Your task to perform on an android device: Google the capital of the United States Image 0: 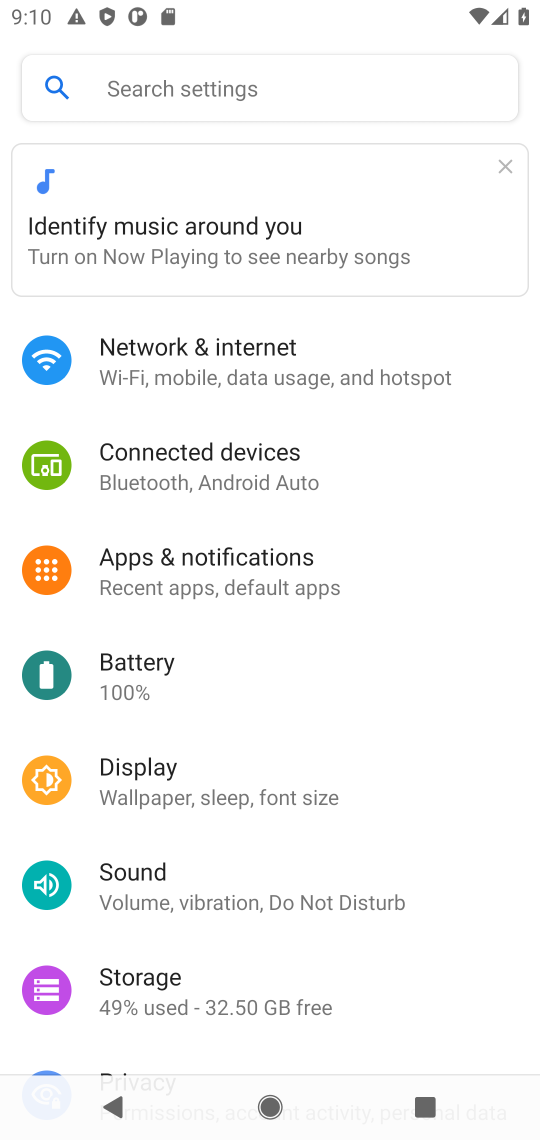
Step 0: press home button
Your task to perform on an android device: Google the capital of the United States Image 1: 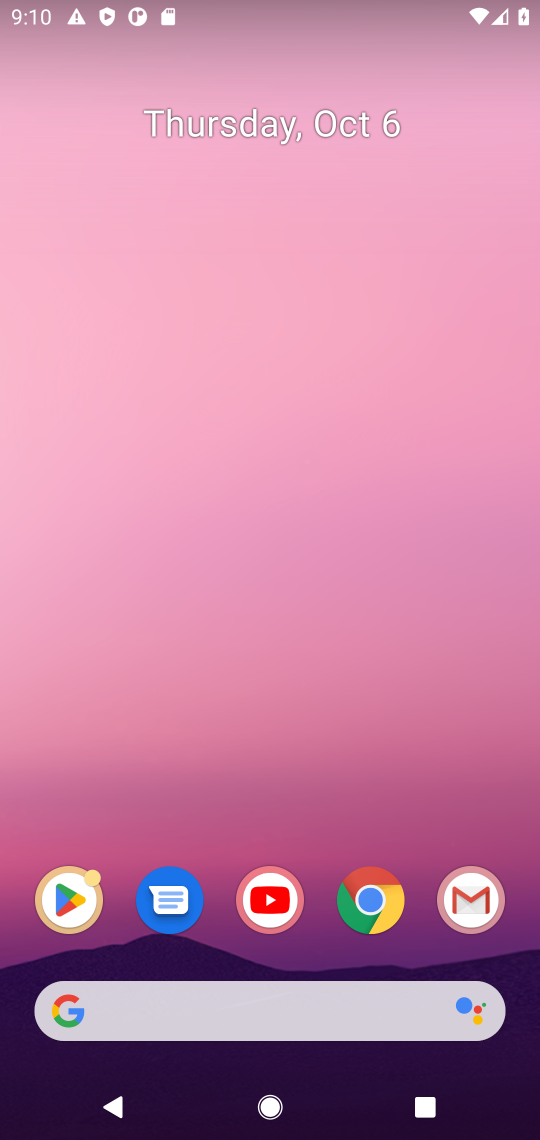
Step 1: click (219, 1018)
Your task to perform on an android device: Google the capital of the United States Image 2: 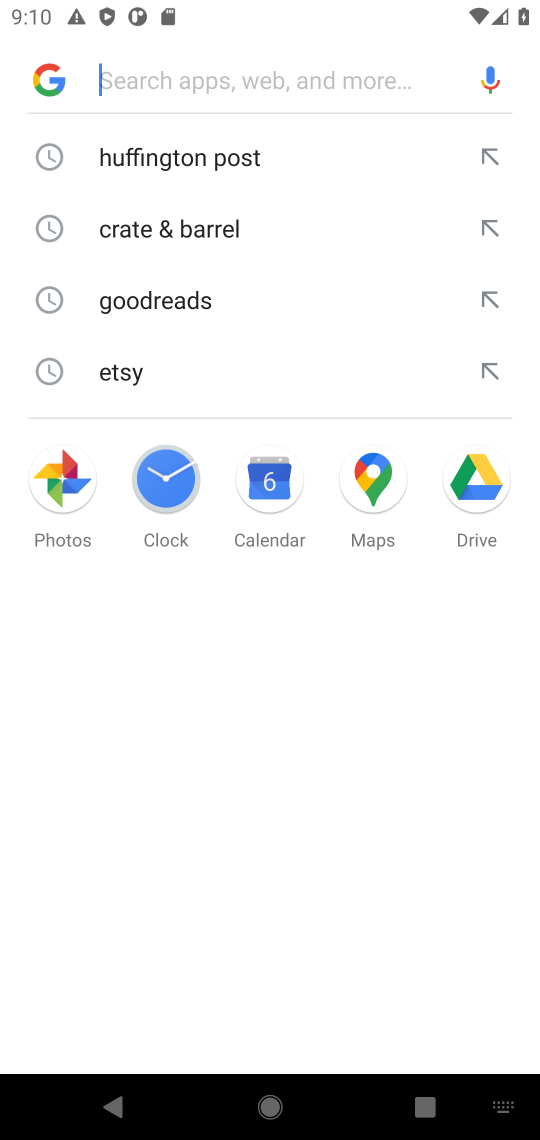
Step 2: type "capital of united states"
Your task to perform on an android device: Google the capital of the United States Image 3: 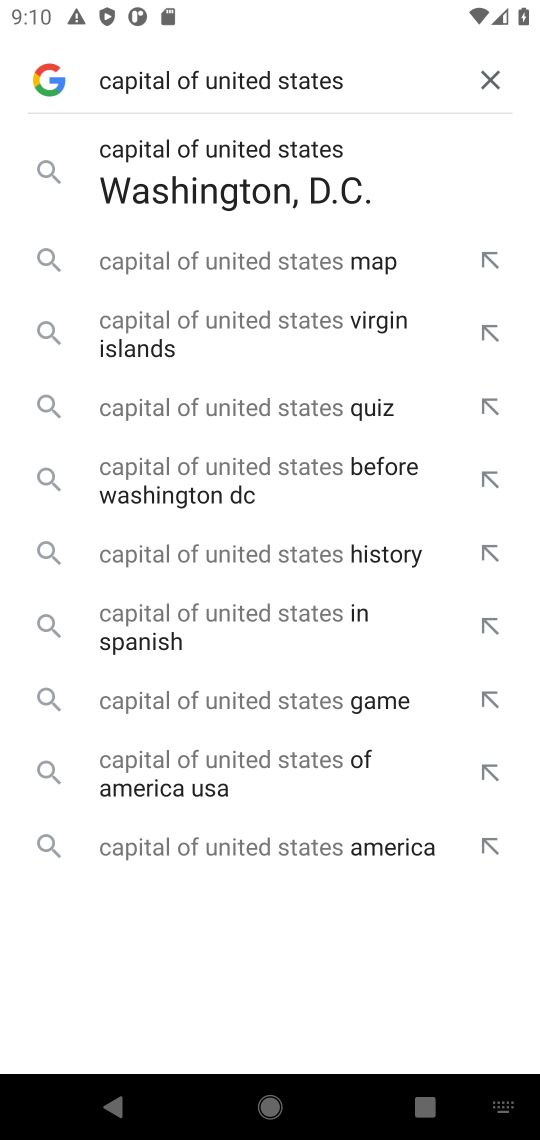
Step 3: click (383, 186)
Your task to perform on an android device: Google the capital of the United States Image 4: 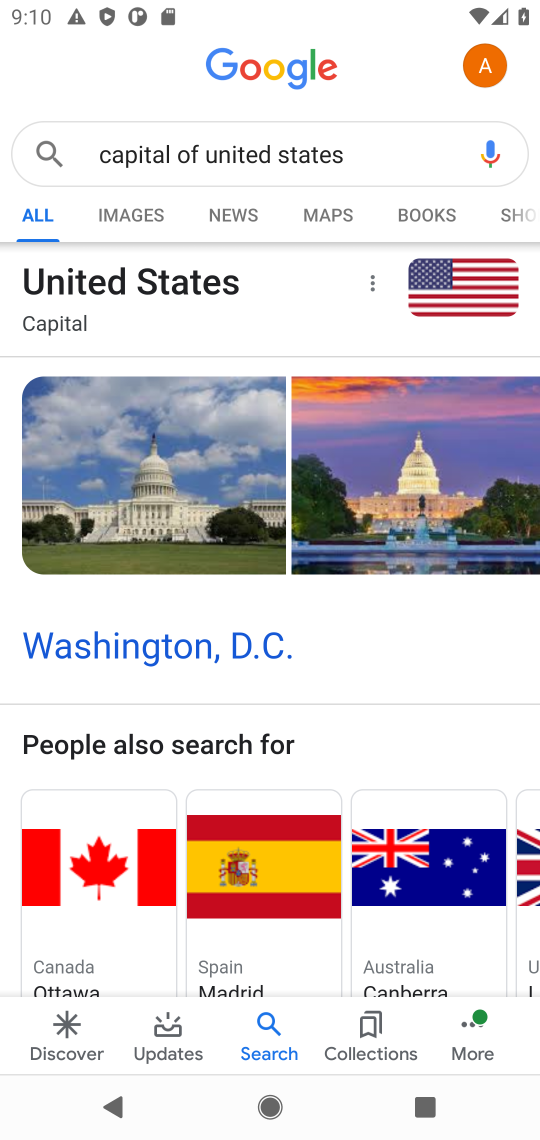
Step 4: task complete